Your task to perform on an android device: What's on my calendar tomorrow? Image 0: 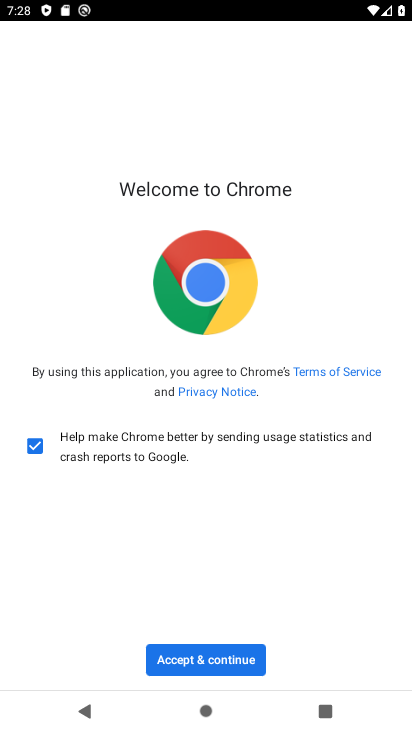
Step 0: press home button
Your task to perform on an android device: What's on my calendar tomorrow? Image 1: 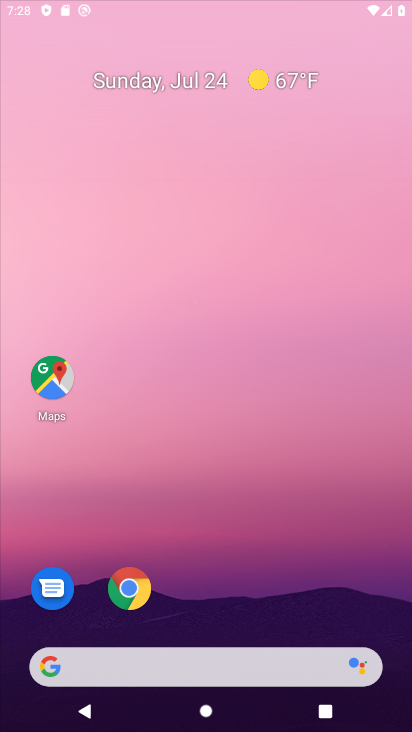
Step 1: drag from (157, 626) to (230, 304)
Your task to perform on an android device: What's on my calendar tomorrow? Image 2: 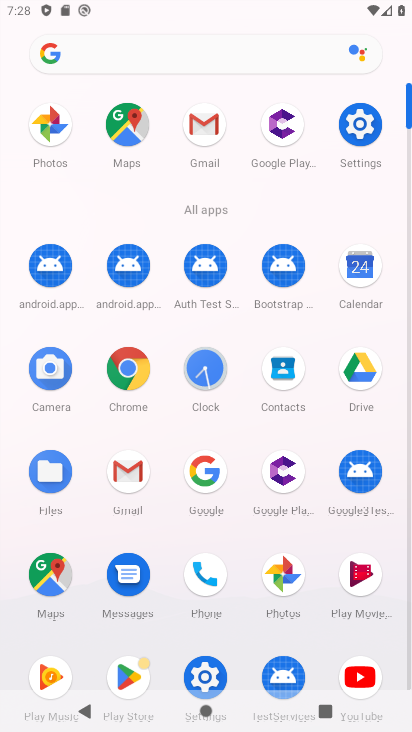
Step 2: click (364, 254)
Your task to perform on an android device: What's on my calendar tomorrow? Image 3: 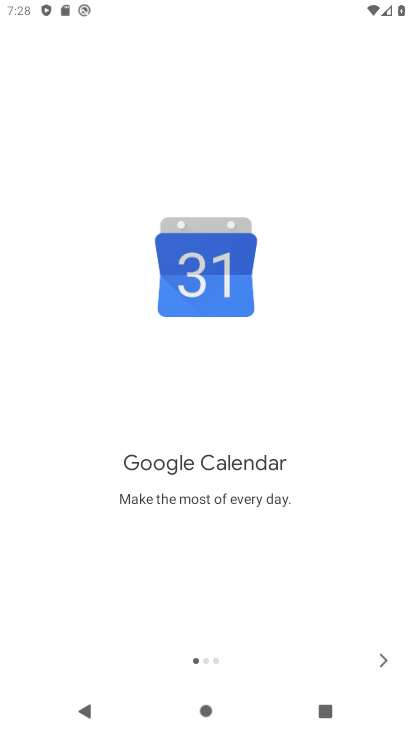
Step 3: click (386, 661)
Your task to perform on an android device: What's on my calendar tomorrow? Image 4: 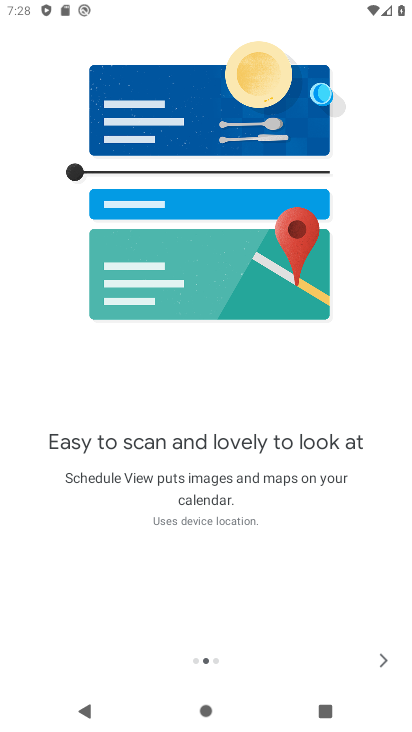
Step 4: click (386, 661)
Your task to perform on an android device: What's on my calendar tomorrow? Image 5: 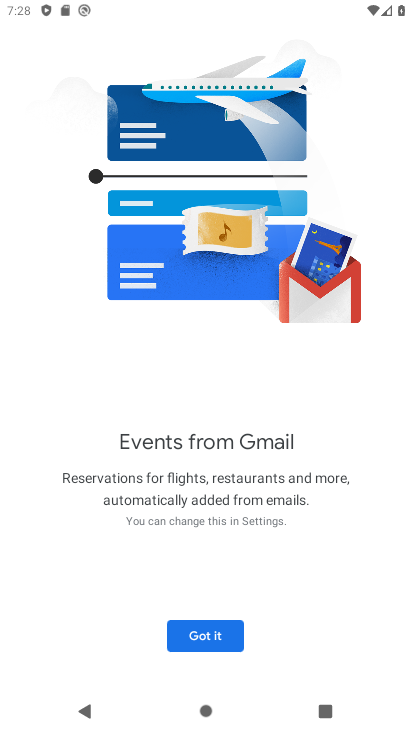
Step 5: click (226, 648)
Your task to perform on an android device: What's on my calendar tomorrow? Image 6: 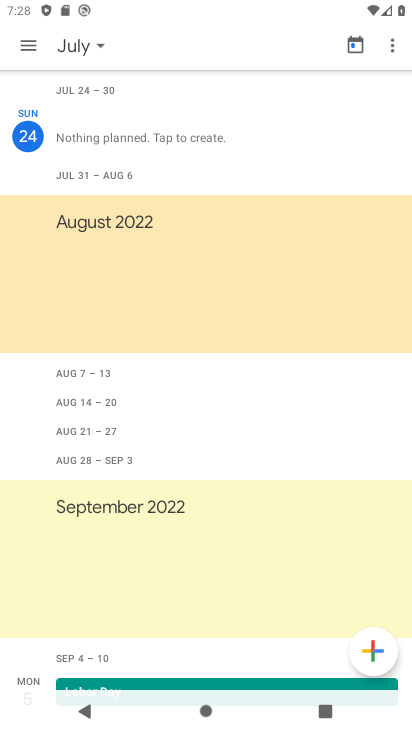
Step 6: click (32, 34)
Your task to perform on an android device: What's on my calendar tomorrow? Image 7: 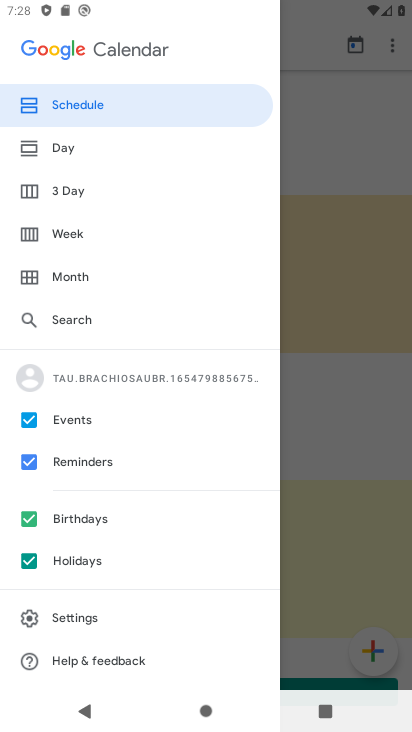
Step 7: click (62, 281)
Your task to perform on an android device: What's on my calendar tomorrow? Image 8: 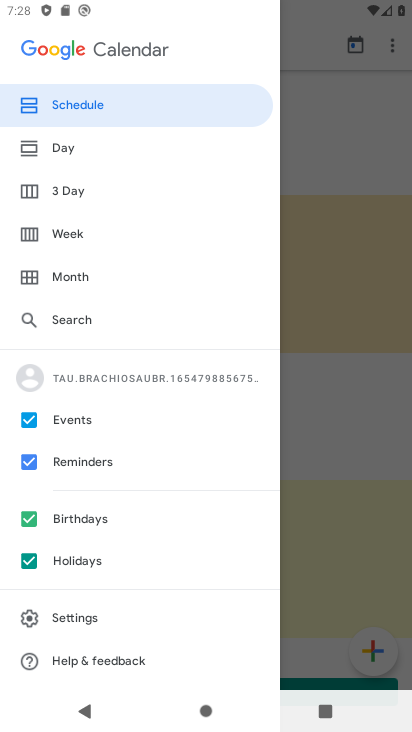
Step 8: click (96, 276)
Your task to perform on an android device: What's on my calendar tomorrow? Image 9: 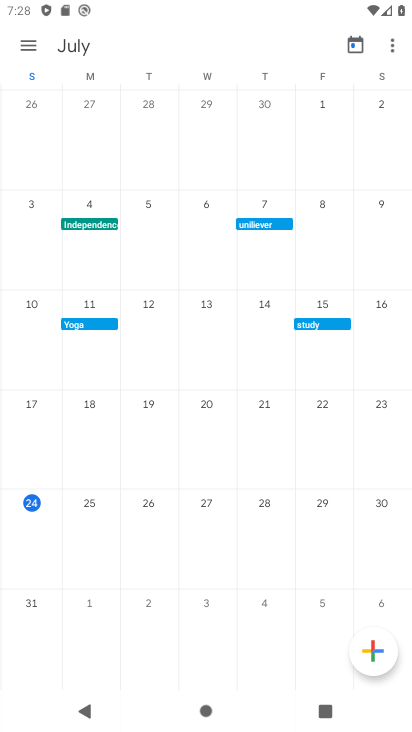
Step 9: click (156, 533)
Your task to perform on an android device: What's on my calendar tomorrow? Image 10: 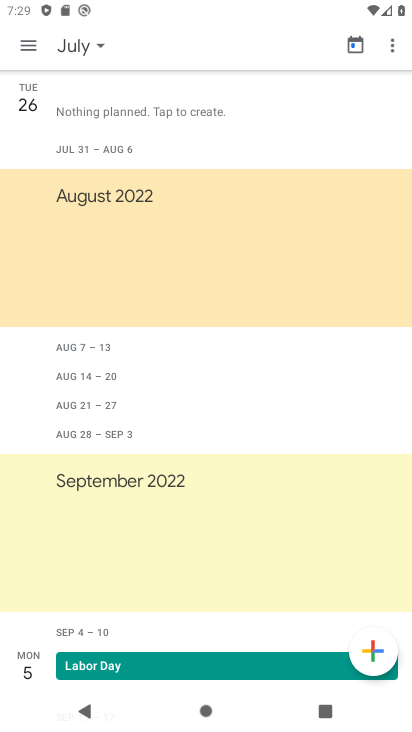
Step 10: task complete